Your task to perform on an android device: manage bookmarks in the chrome app Image 0: 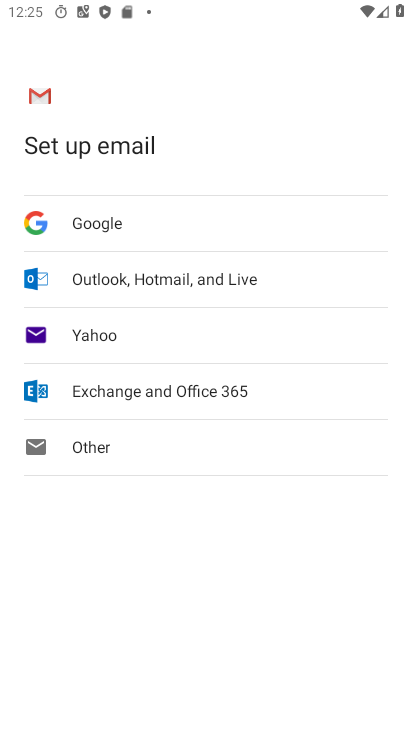
Step 0: press home button
Your task to perform on an android device: manage bookmarks in the chrome app Image 1: 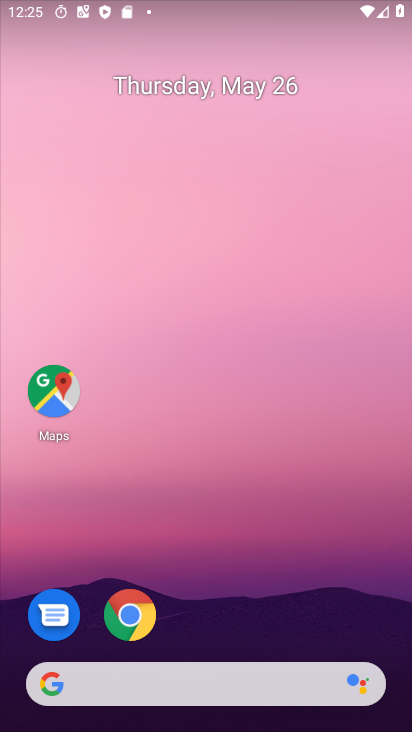
Step 1: drag from (276, 618) to (185, 177)
Your task to perform on an android device: manage bookmarks in the chrome app Image 2: 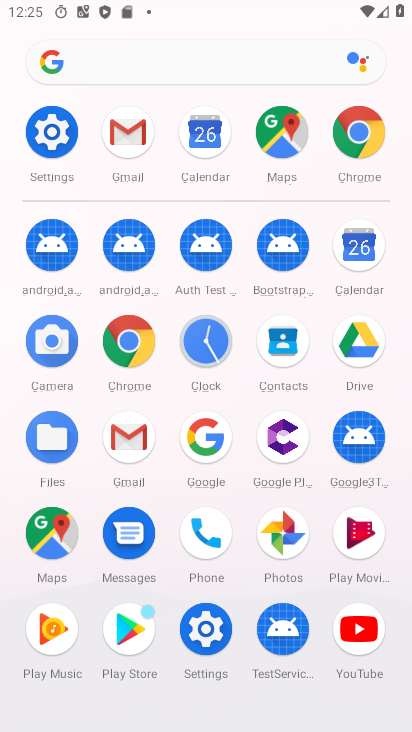
Step 2: click (360, 141)
Your task to perform on an android device: manage bookmarks in the chrome app Image 3: 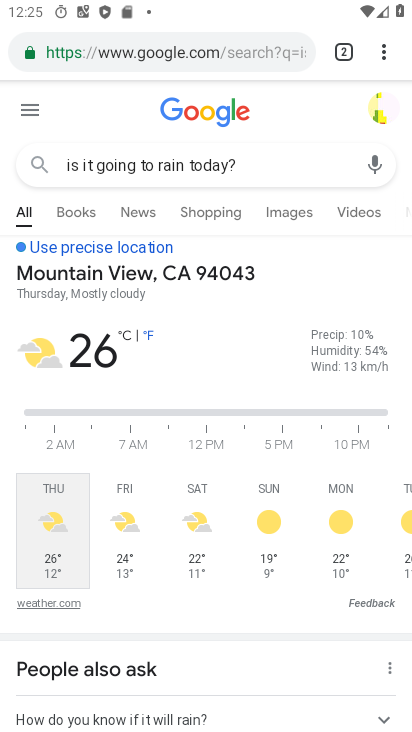
Step 3: click (394, 63)
Your task to perform on an android device: manage bookmarks in the chrome app Image 4: 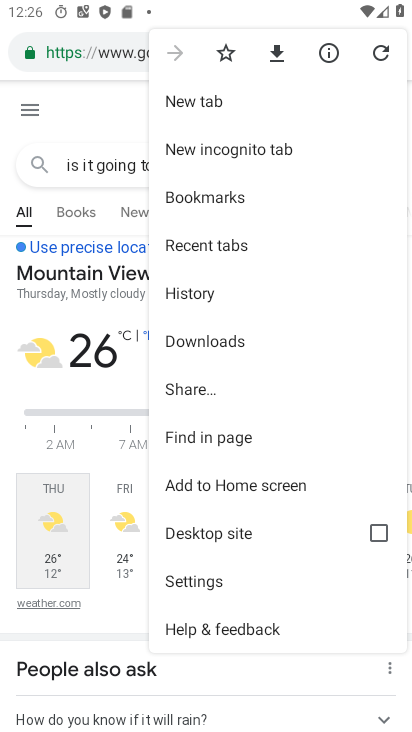
Step 4: click (254, 192)
Your task to perform on an android device: manage bookmarks in the chrome app Image 5: 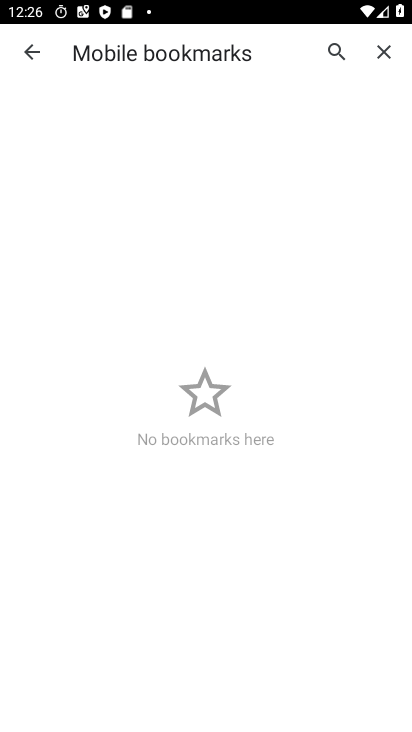
Step 5: task complete